Your task to perform on an android device: Open privacy settings Image 0: 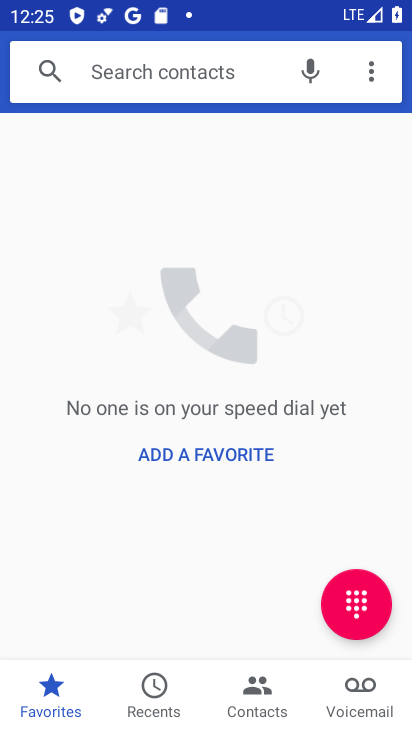
Step 0: press home button
Your task to perform on an android device: Open privacy settings Image 1: 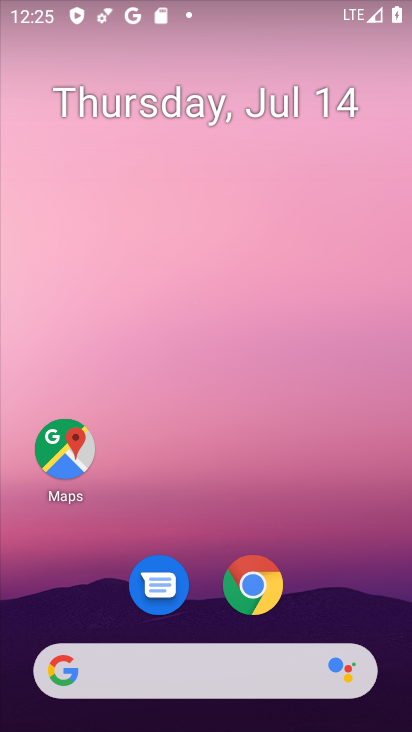
Step 1: drag from (321, 563) to (228, 50)
Your task to perform on an android device: Open privacy settings Image 2: 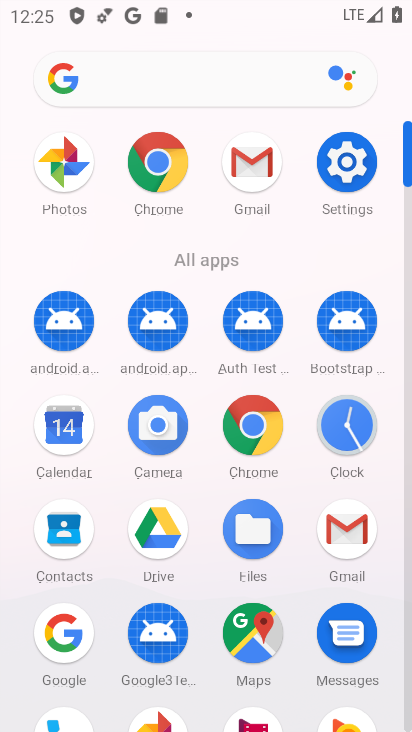
Step 2: click (339, 159)
Your task to perform on an android device: Open privacy settings Image 3: 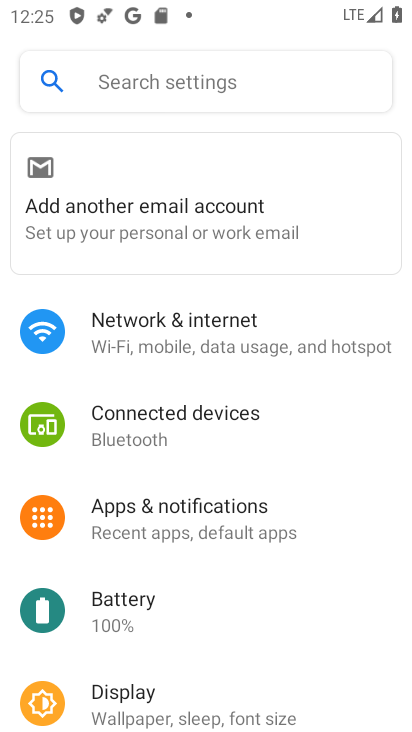
Step 3: drag from (246, 569) to (257, 158)
Your task to perform on an android device: Open privacy settings Image 4: 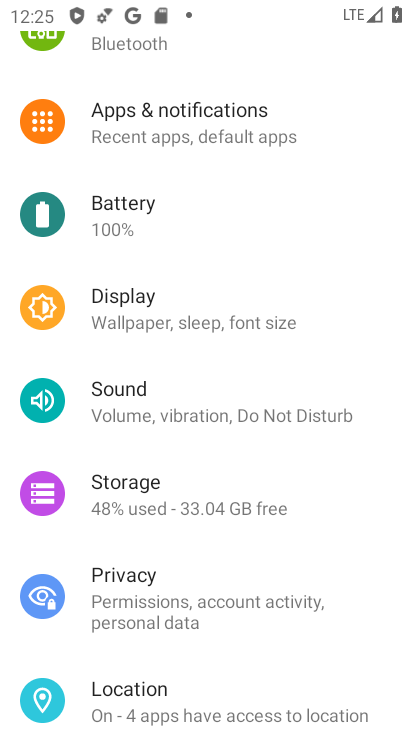
Step 4: click (189, 603)
Your task to perform on an android device: Open privacy settings Image 5: 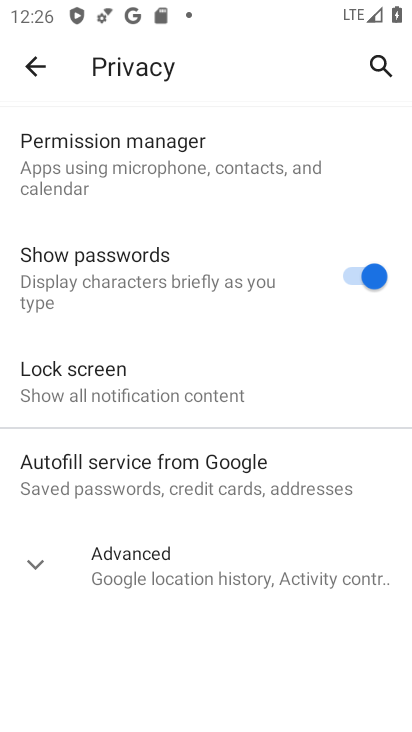
Step 5: click (32, 560)
Your task to perform on an android device: Open privacy settings Image 6: 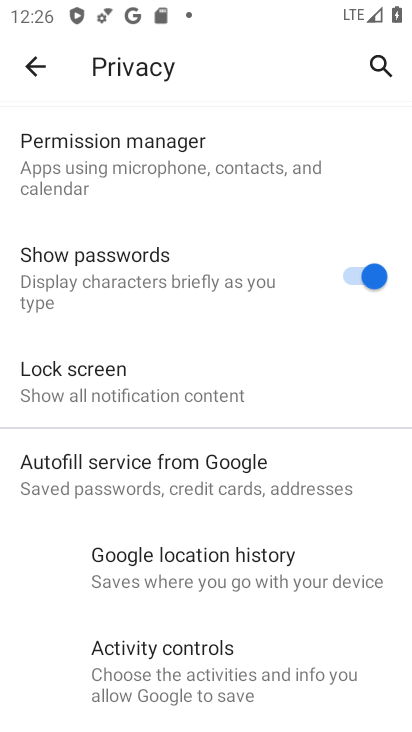
Step 6: task complete